Your task to perform on an android device: find snoozed emails in the gmail app Image 0: 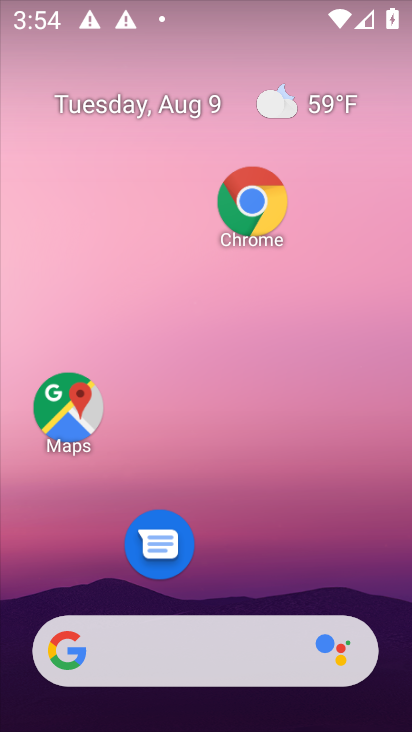
Step 0: drag from (174, 601) to (246, 233)
Your task to perform on an android device: find snoozed emails in the gmail app Image 1: 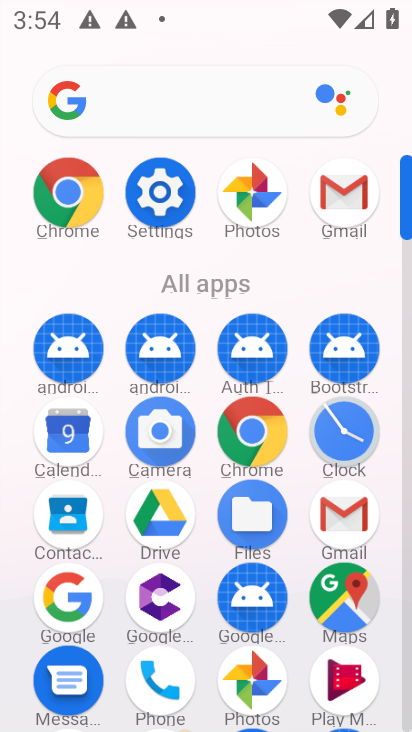
Step 1: click (336, 519)
Your task to perform on an android device: find snoozed emails in the gmail app Image 2: 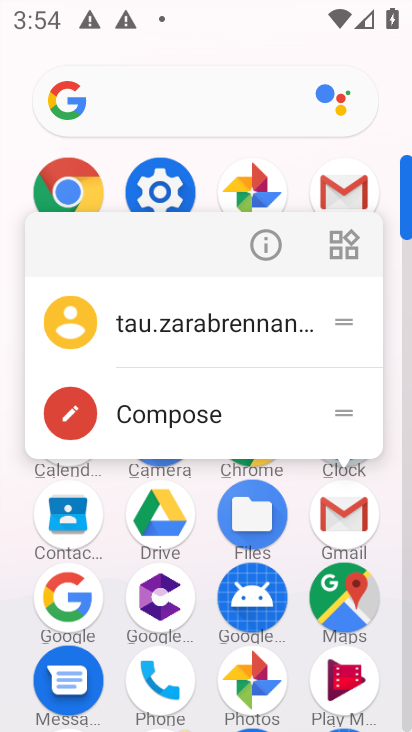
Step 2: click (336, 519)
Your task to perform on an android device: find snoozed emails in the gmail app Image 3: 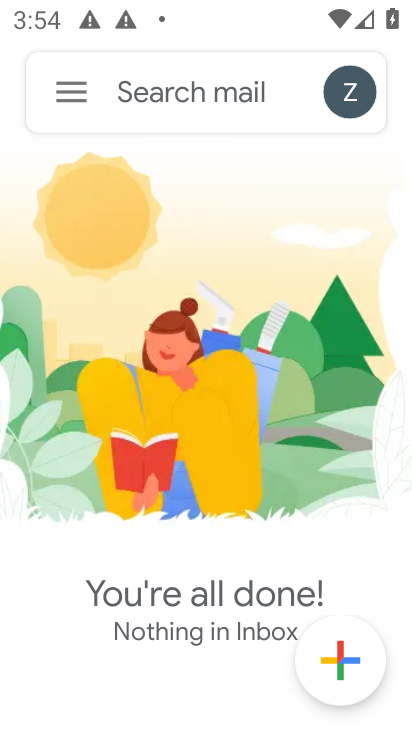
Step 3: click (90, 94)
Your task to perform on an android device: find snoozed emails in the gmail app Image 4: 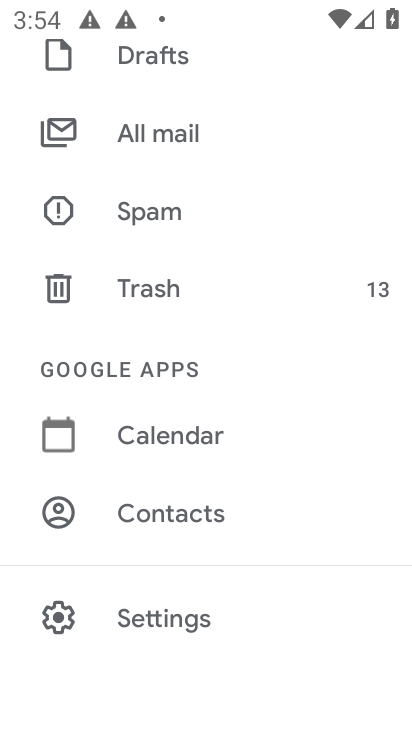
Step 4: drag from (170, 137) to (204, 532)
Your task to perform on an android device: find snoozed emails in the gmail app Image 5: 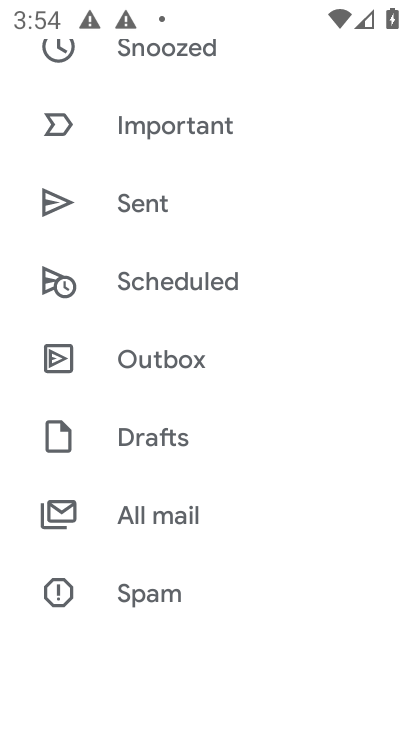
Step 5: drag from (158, 258) to (189, 436)
Your task to perform on an android device: find snoozed emails in the gmail app Image 6: 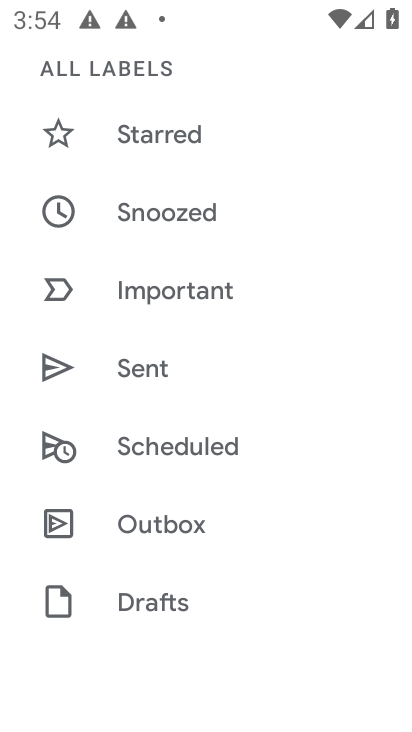
Step 6: click (162, 203)
Your task to perform on an android device: find snoozed emails in the gmail app Image 7: 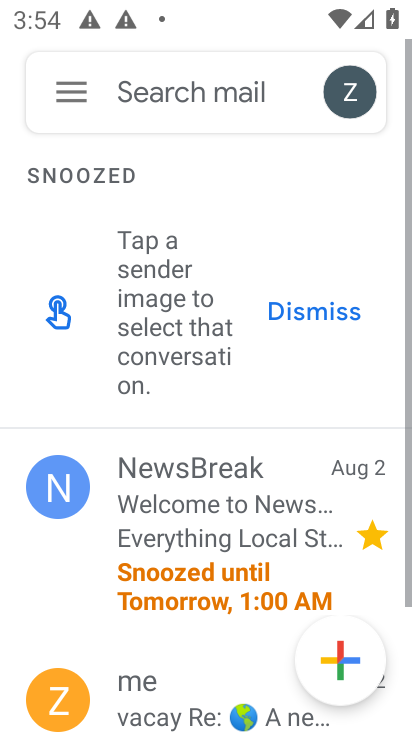
Step 7: task complete